Your task to perform on an android device: move a message to another label in the gmail app Image 0: 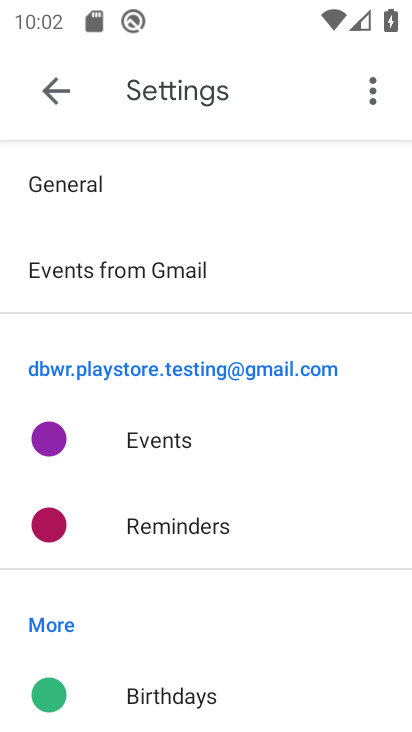
Step 0: press home button
Your task to perform on an android device: move a message to another label in the gmail app Image 1: 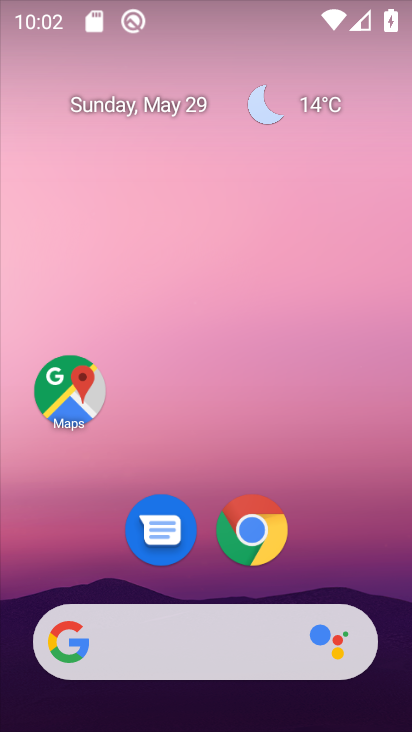
Step 1: drag from (198, 627) to (139, 0)
Your task to perform on an android device: move a message to another label in the gmail app Image 2: 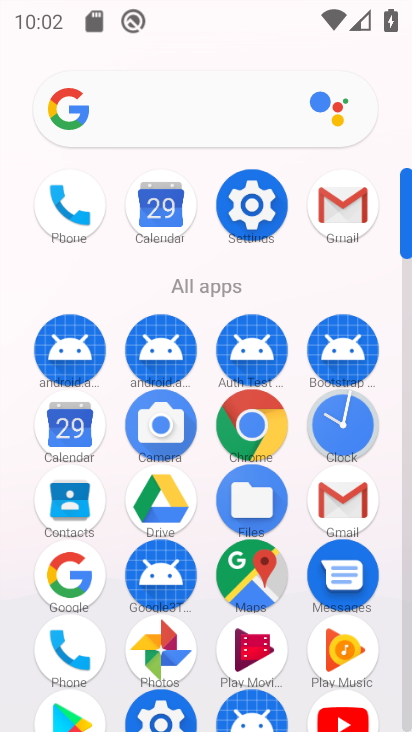
Step 2: click (325, 224)
Your task to perform on an android device: move a message to another label in the gmail app Image 3: 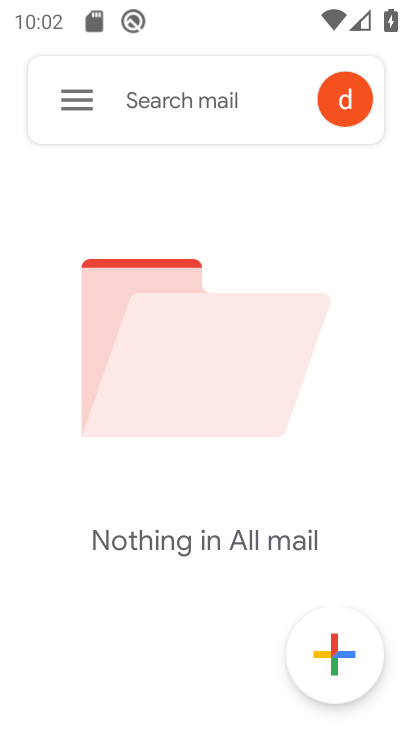
Step 3: click (97, 106)
Your task to perform on an android device: move a message to another label in the gmail app Image 4: 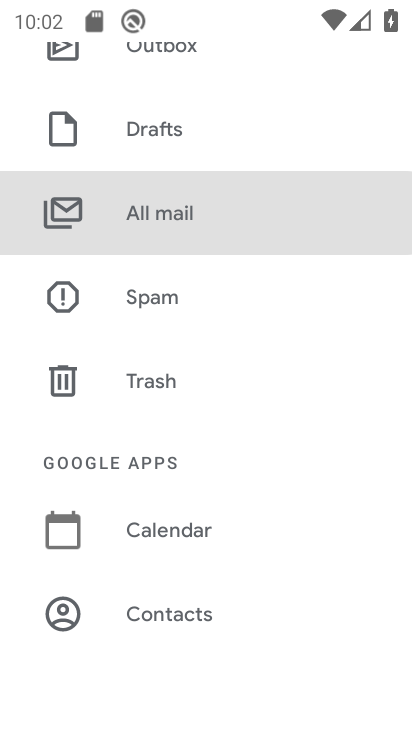
Step 4: click (204, 219)
Your task to perform on an android device: move a message to another label in the gmail app Image 5: 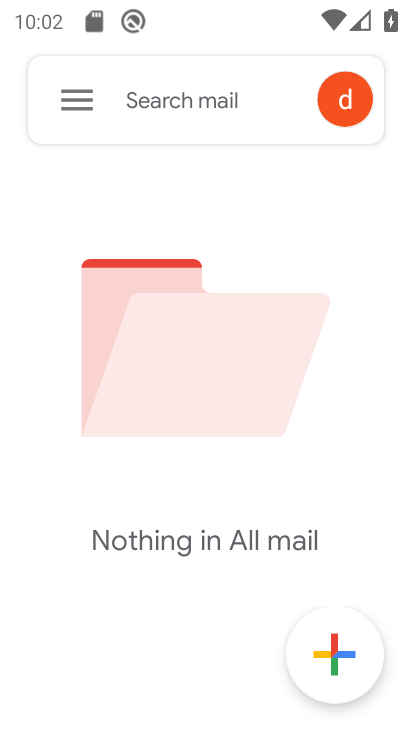
Step 5: task complete